Your task to perform on an android device: open sync settings in chrome Image 0: 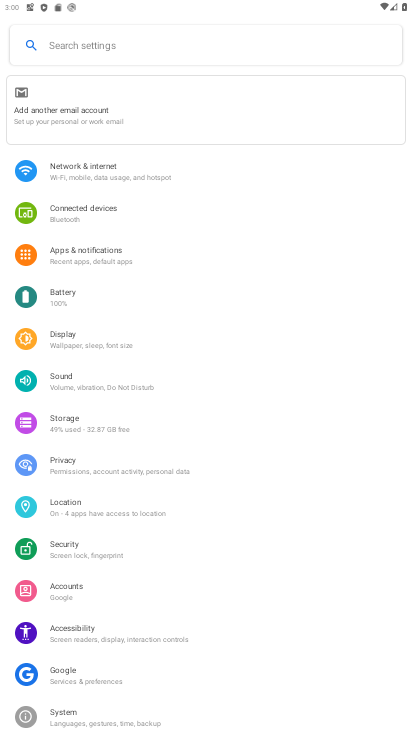
Step 0: press home button
Your task to perform on an android device: open sync settings in chrome Image 1: 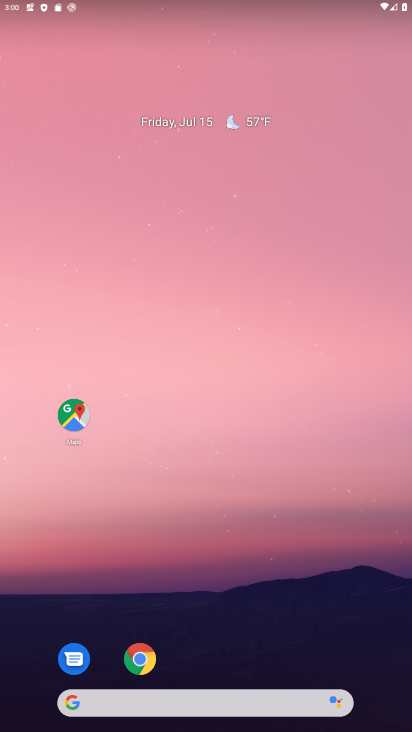
Step 1: drag from (183, 528) to (228, 12)
Your task to perform on an android device: open sync settings in chrome Image 2: 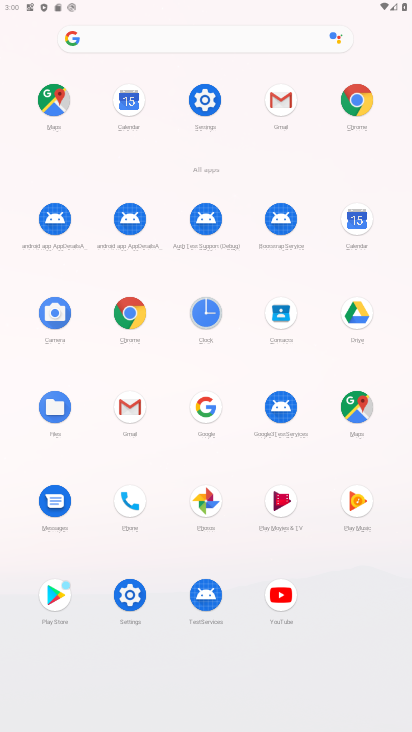
Step 2: drag from (228, 519) to (200, 163)
Your task to perform on an android device: open sync settings in chrome Image 3: 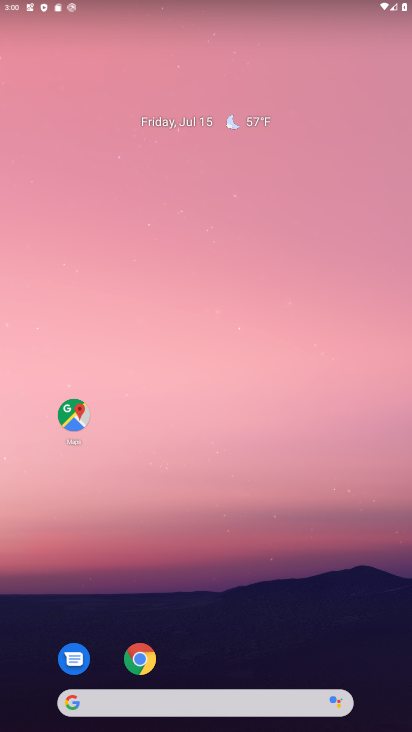
Step 3: click (133, 324)
Your task to perform on an android device: open sync settings in chrome Image 4: 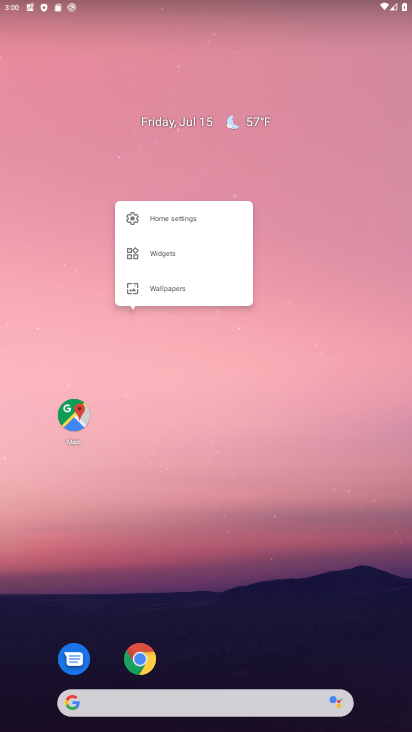
Step 4: click (143, 661)
Your task to perform on an android device: open sync settings in chrome Image 5: 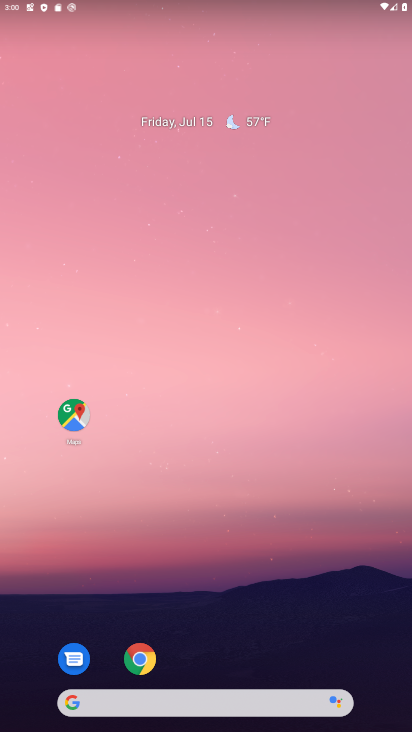
Step 5: click (154, 657)
Your task to perform on an android device: open sync settings in chrome Image 6: 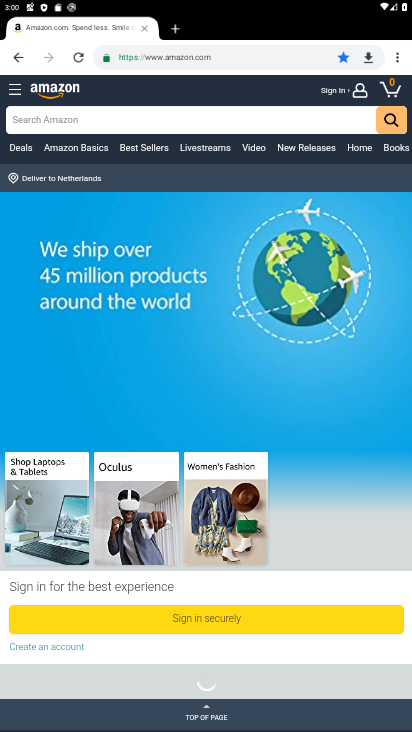
Step 6: click (395, 55)
Your task to perform on an android device: open sync settings in chrome Image 7: 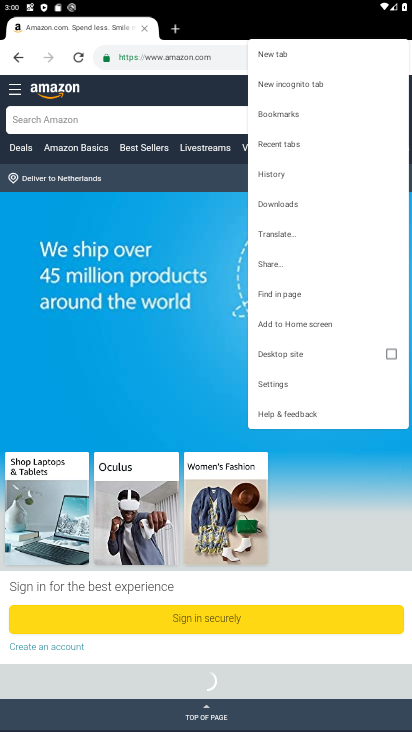
Step 7: click (286, 387)
Your task to perform on an android device: open sync settings in chrome Image 8: 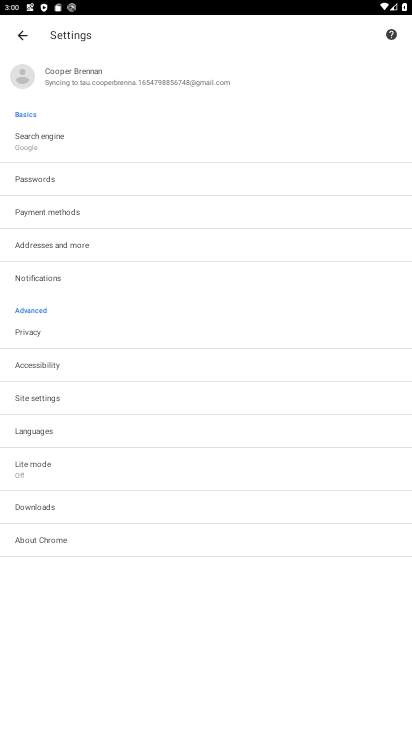
Step 8: click (127, 83)
Your task to perform on an android device: open sync settings in chrome Image 9: 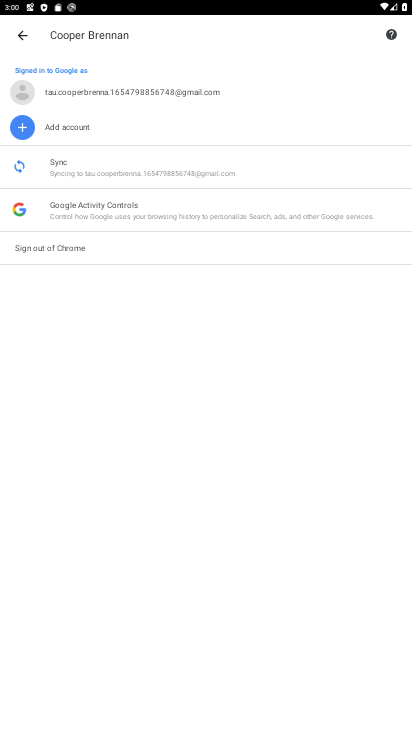
Step 9: click (110, 170)
Your task to perform on an android device: open sync settings in chrome Image 10: 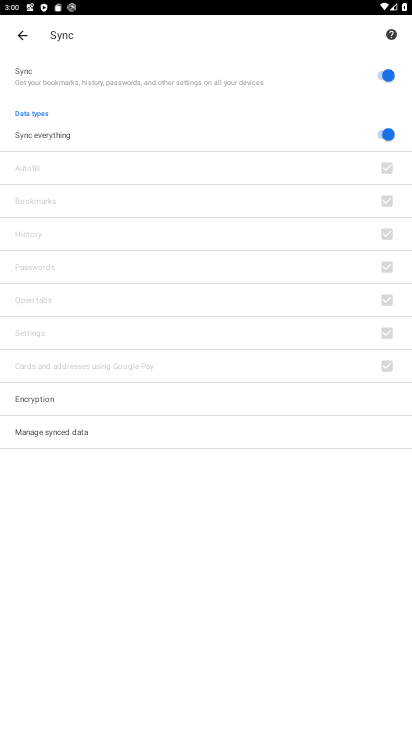
Step 10: task complete